Your task to perform on an android device: Search for sushi restaurants on Maps Image 0: 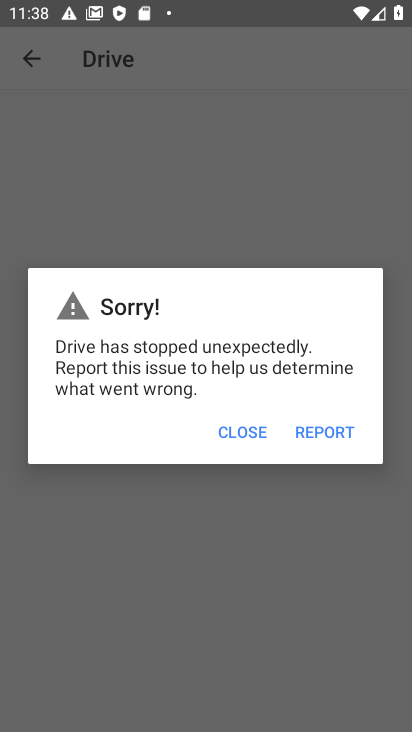
Step 0: press home button
Your task to perform on an android device: Search for sushi restaurants on Maps Image 1: 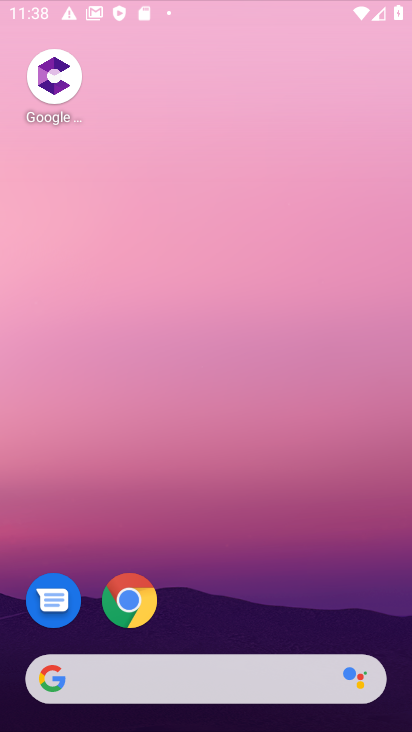
Step 1: press home button
Your task to perform on an android device: Search for sushi restaurants on Maps Image 2: 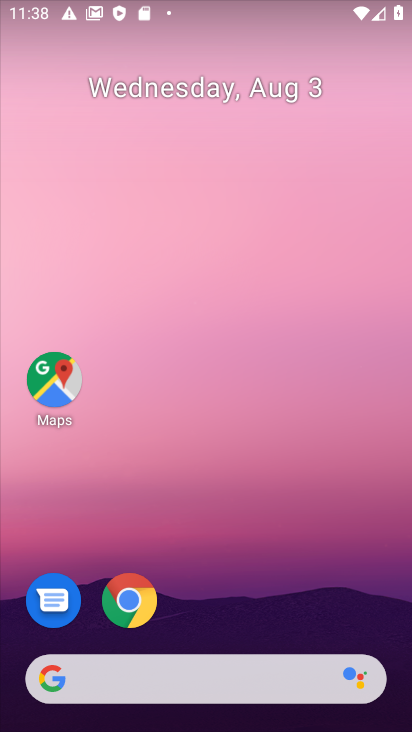
Step 2: click (54, 379)
Your task to perform on an android device: Search for sushi restaurants on Maps Image 3: 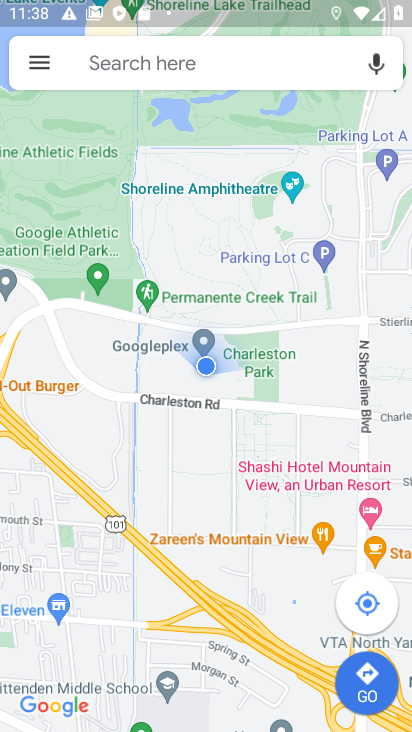
Step 3: click (155, 65)
Your task to perform on an android device: Search for sushi restaurants on Maps Image 4: 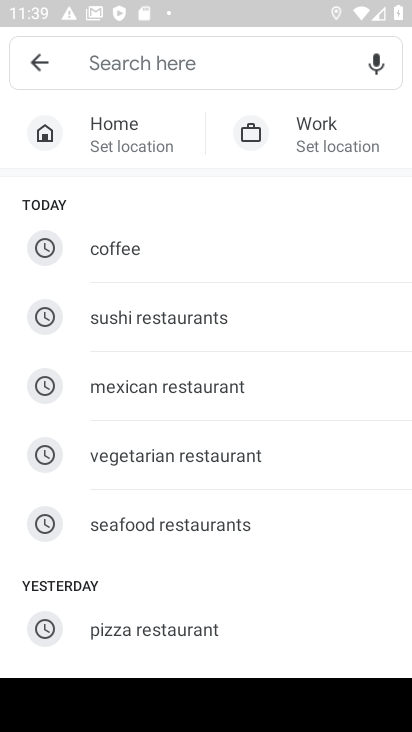
Step 4: click (158, 312)
Your task to perform on an android device: Search for sushi restaurants on Maps Image 5: 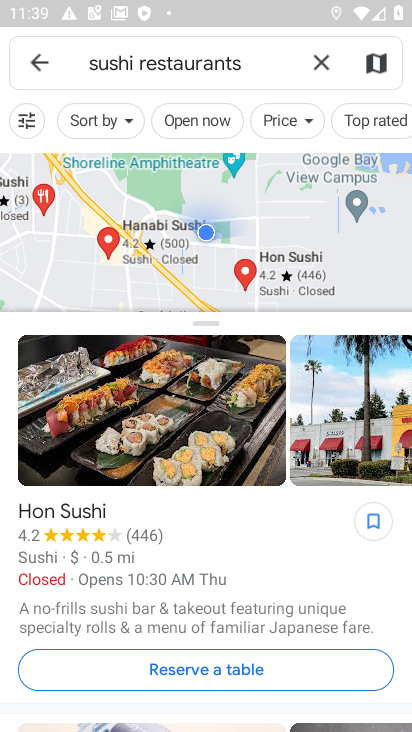
Step 5: task complete